Your task to perform on an android device: Go to Google Image 0: 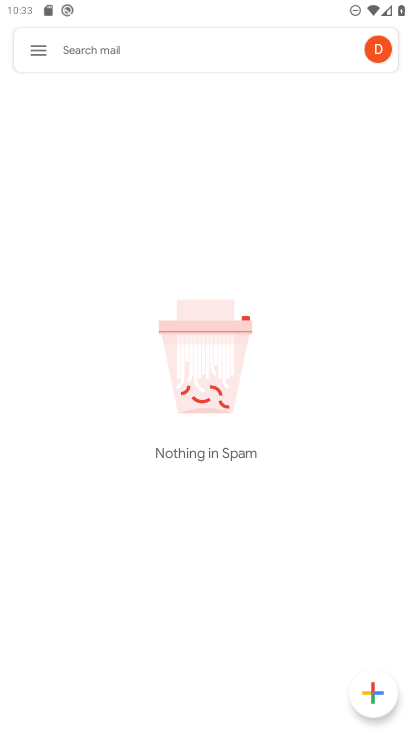
Step 0: press home button
Your task to perform on an android device: Go to Google Image 1: 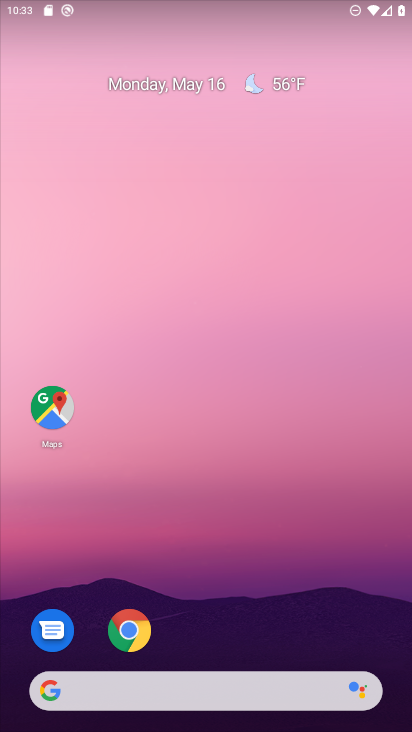
Step 1: click (55, 683)
Your task to perform on an android device: Go to Google Image 2: 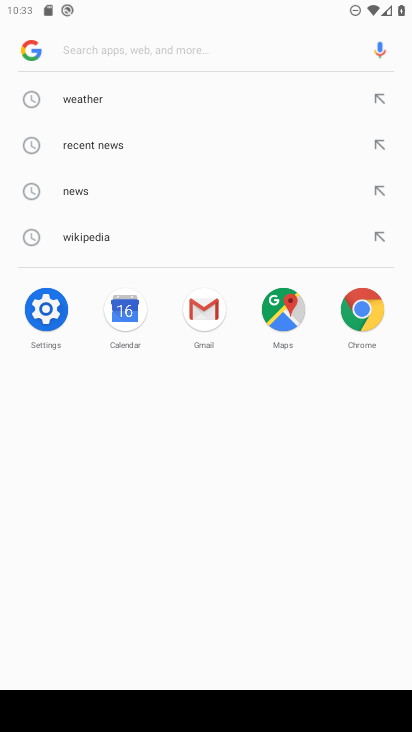
Step 2: click (23, 45)
Your task to perform on an android device: Go to Google Image 3: 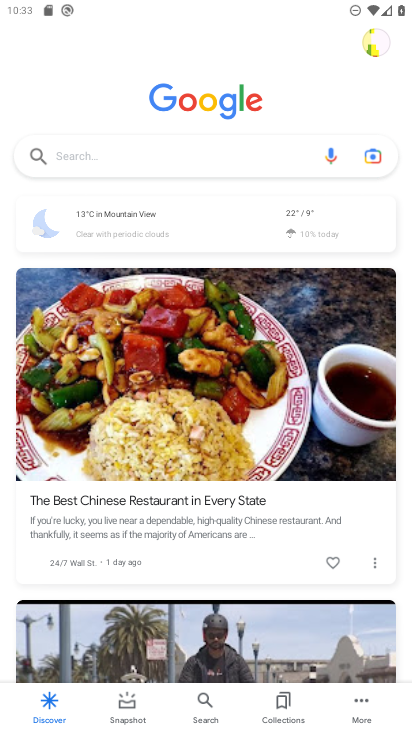
Step 3: task complete